Your task to perform on an android device: Open the Play Movies app and select the watchlist tab. Image 0: 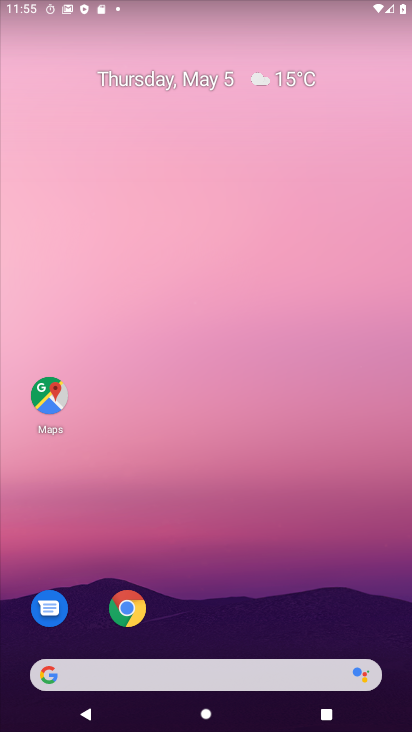
Step 0: drag from (230, 616) to (229, 13)
Your task to perform on an android device: Open the Play Movies app and select the watchlist tab. Image 1: 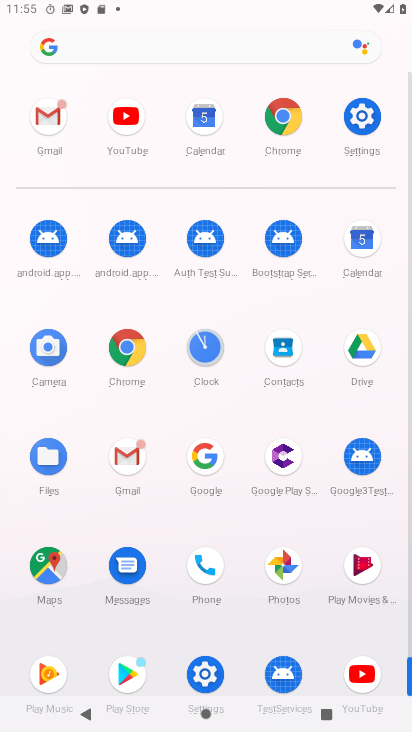
Step 1: drag from (235, 504) to (238, 334)
Your task to perform on an android device: Open the Play Movies app and select the watchlist tab. Image 2: 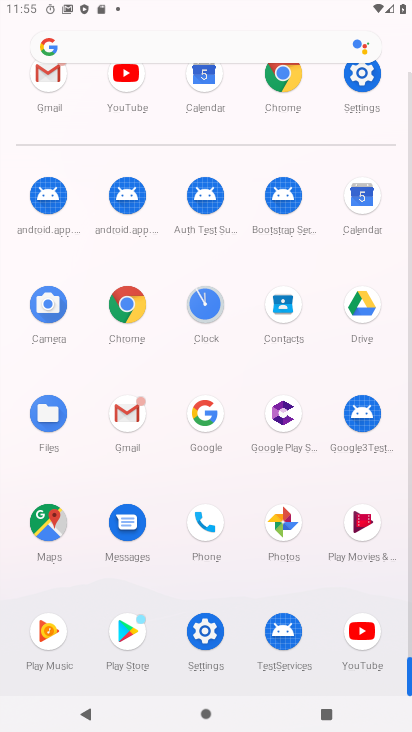
Step 2: click (358, 520)
Your task to perform on an android device: Open the Play Movies app and select the watchlist tab. Image 3: 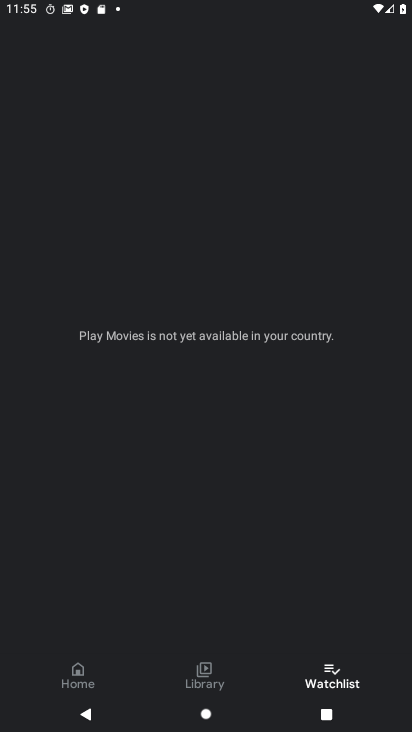
Step 3: click (327, 673)
Your task to perform on an android device: Open the Play Movies app and select the watchlist tab. Image 4: 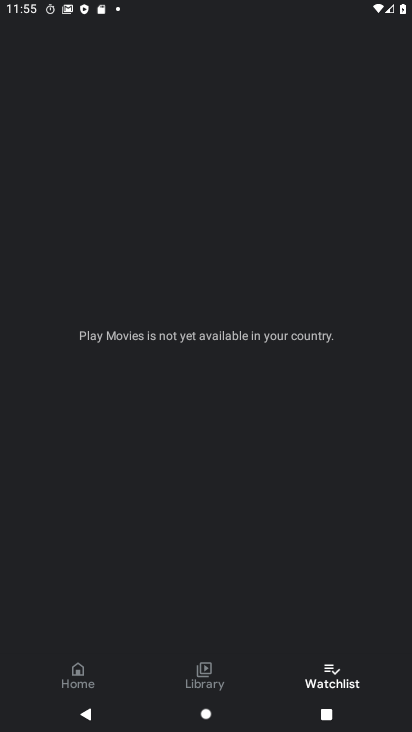
Step 4: task complete